Your task to perform on an android device: Is it going to rain today? Image 0: 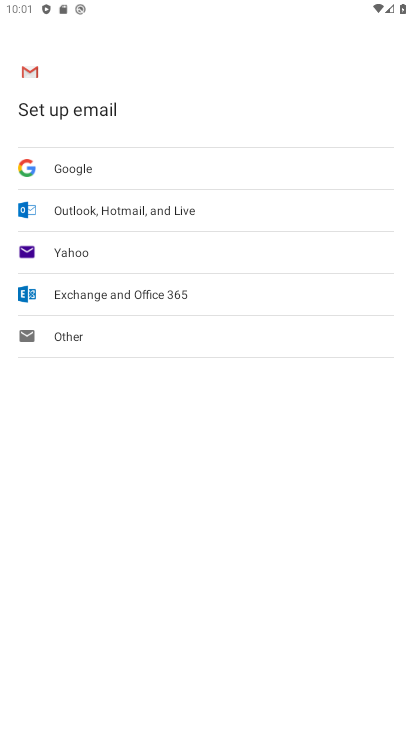
Step 0: press home button
Your task to perform on an android device: Is it going to rain today? Image 1: 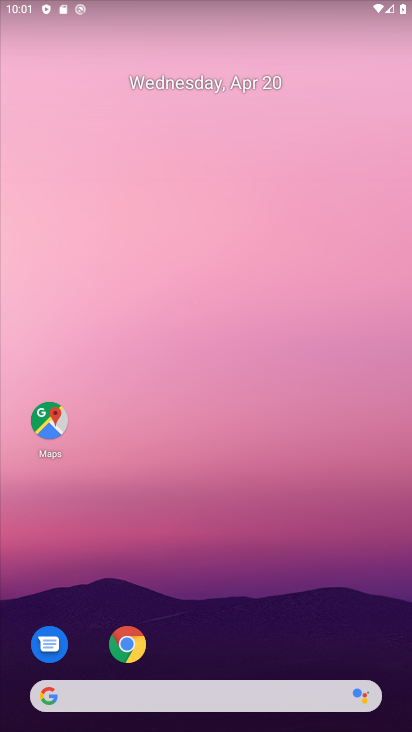
Step 1: click (249, 688)
Your task to perform on an android device: Is it going to rain today? Image 2: 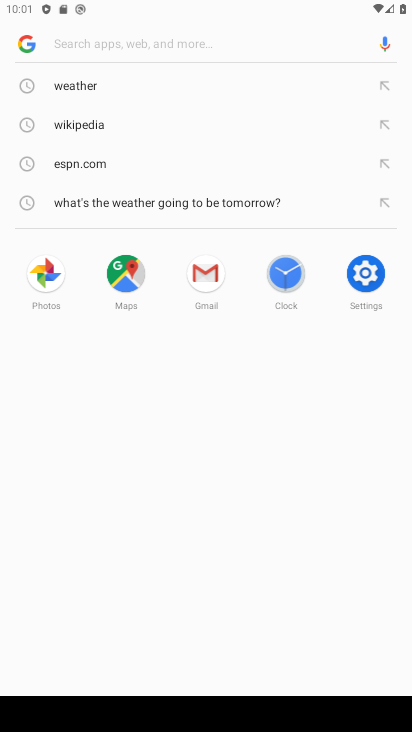
Step 2: type "Is it going to rain today?"
Your task to perform on an android device: Is it going to rain today? Image 3: 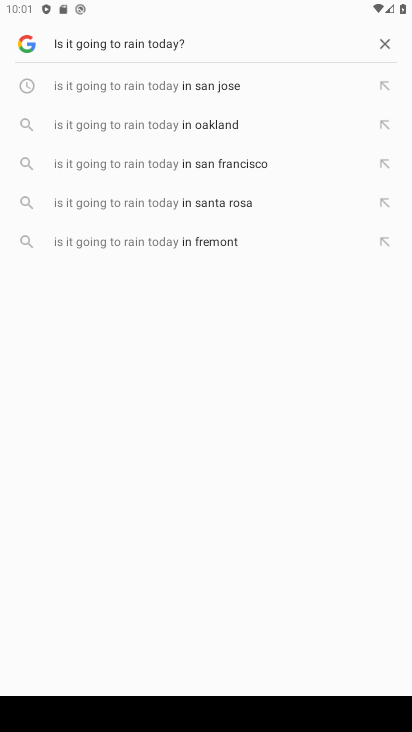
Step 3: click (230, 85)
Your task to perform on an android device: Is it going to rain today? Image 4: 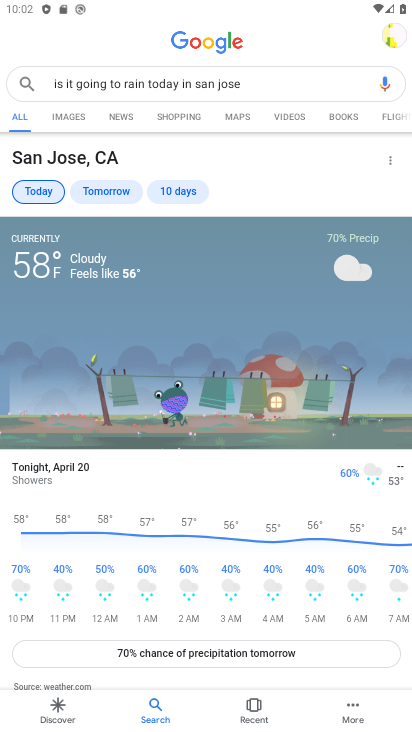
Step 4: task complete